Your task to perform on an android device: See recent photos Image 0: 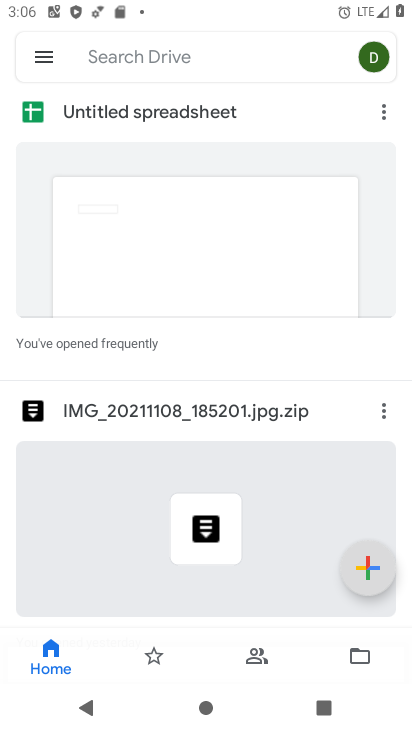
Step 0: press home button
Your task to perform on an android device: See recent photos Image 1: 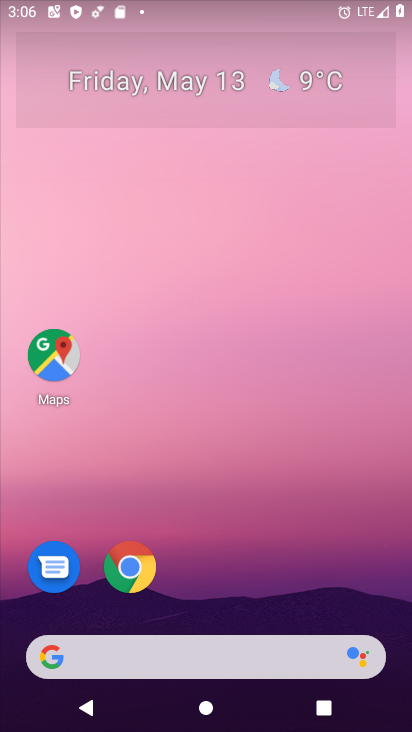
Step 1: drag from (220, 583) to (214, 23)
Your task to perform on an android device: See recent photos Image 2: 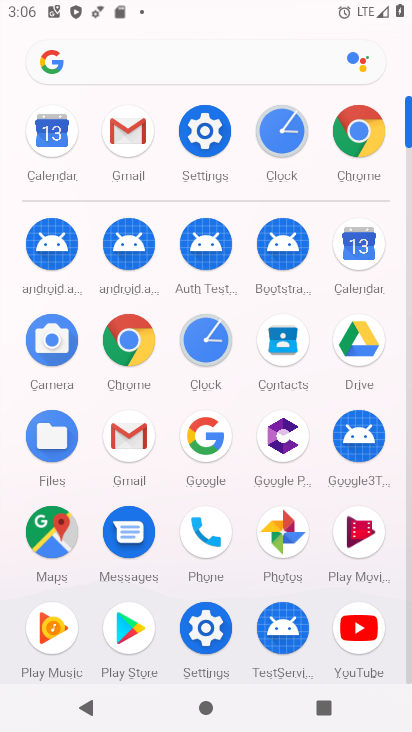
Step 2: click (285, 532)
Your task to perform on an android device: See recent photos Image 3: 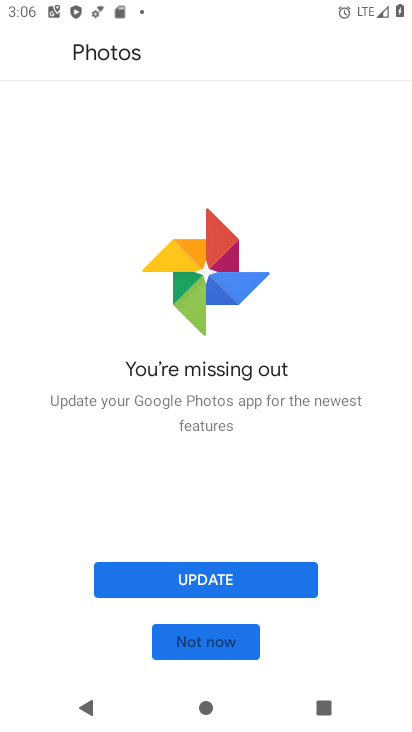
Step 3: click (199, 645)
Your task to perform on an android device: See recent photos Image 4: 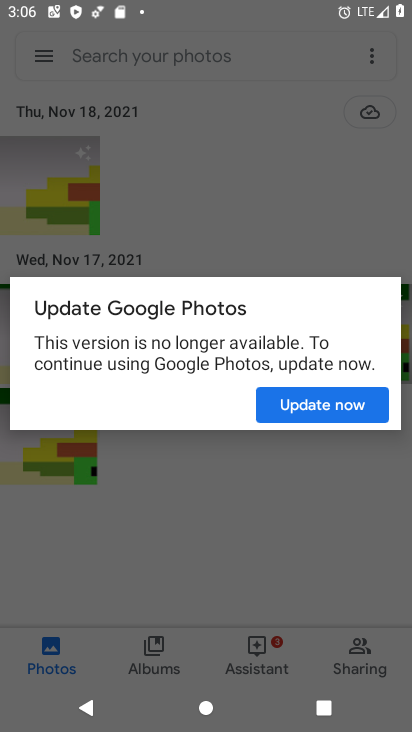
Step 4: click (350, 394)
Your task to perform on an android device: See recent photos Image 5: 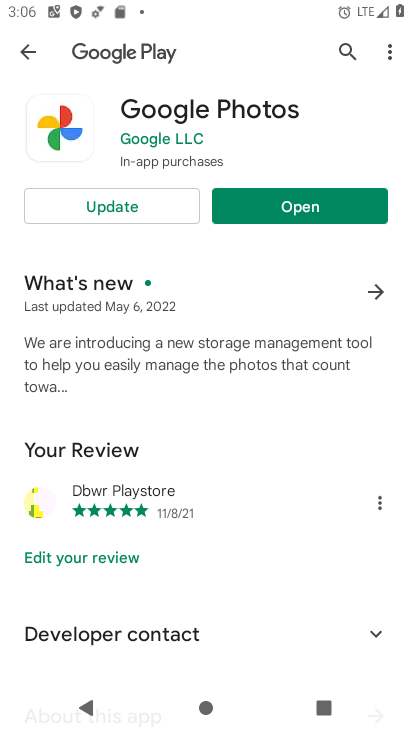
Step 5: click (304, 216)
Your task to perform on an android device: See recent photos Image 6: 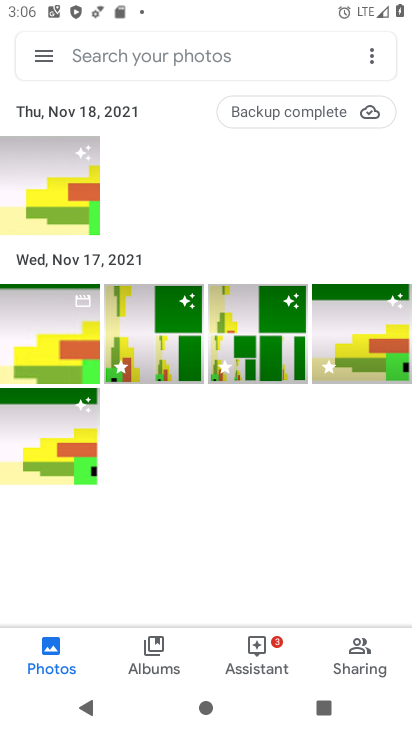
Step 6: click (165, 355)
Your task to perform on an android device: See recent photos Image 7: 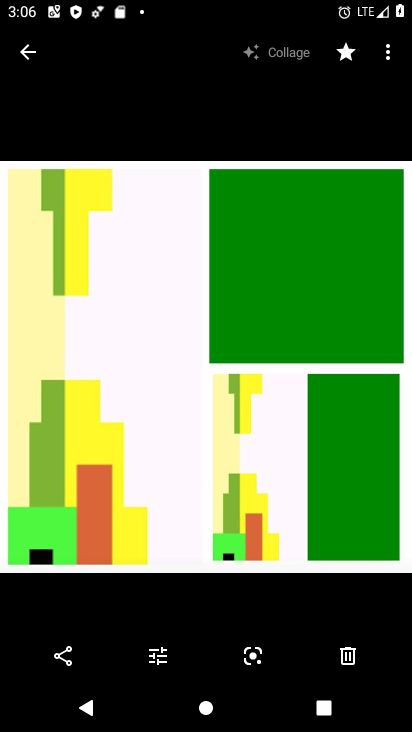
Step 7: task complete